Your task to perform on an android device: remove spam from my inbox in the gmail app Image 0: 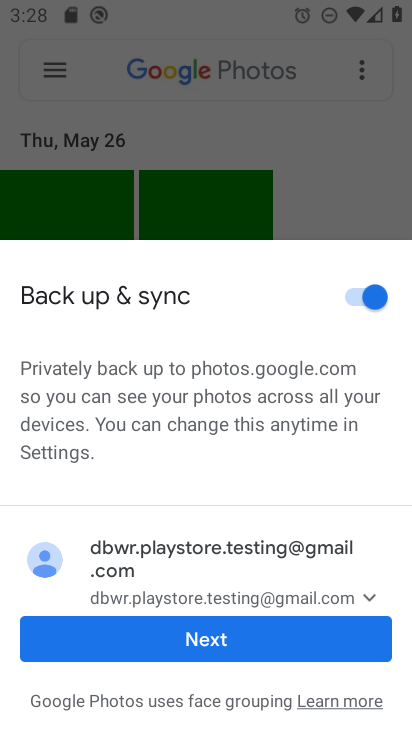
Step 0: press home button
Your task to perform on an android device: remove spam from my inbox in the gmail app Image 1: 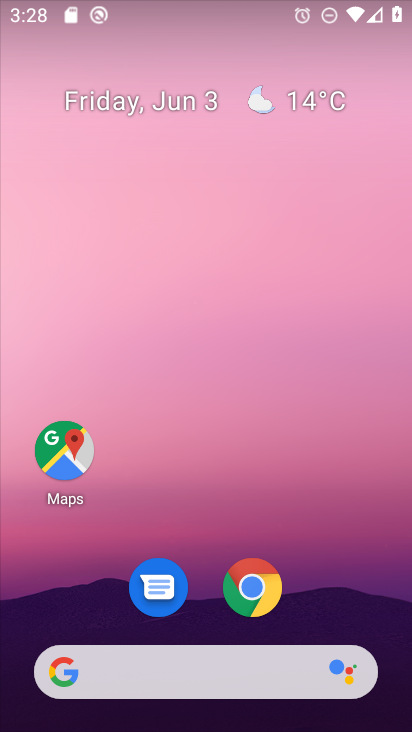
Step 1: drag from (249, 649) to (249, 159)
Your task to perform on an android device: remove spam from my inbox in the gmail app Image 2: 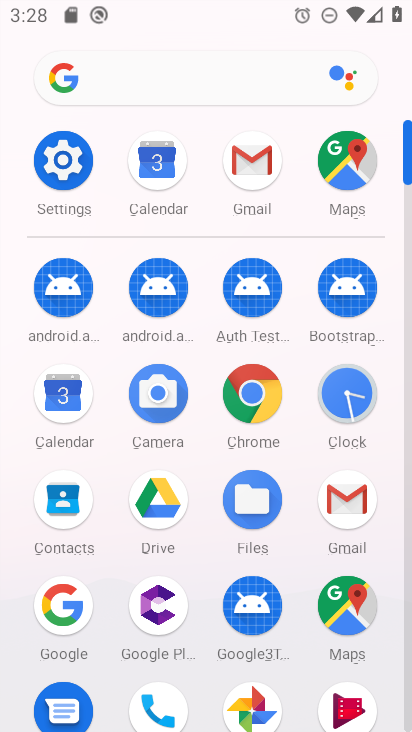
Step 2: click (345, 506)
Your task to perform on an android device: remove spam from my inbox in the gmail app Image 3: 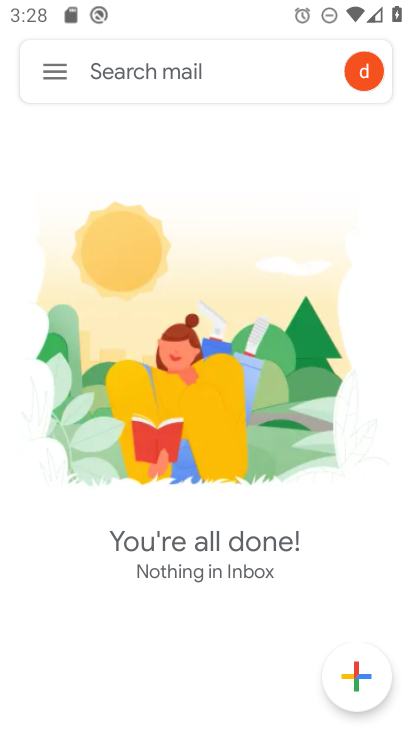
Step 3: click (57, 63)
Your task to perform on an android device: remove spam from my inbox in the gmail app Image 4: 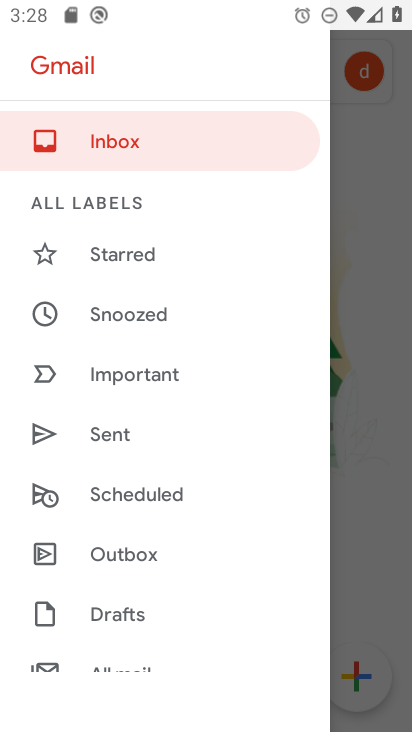
Step 4: click (109, 135)
Your task to perform on an android device: remove spam from my inbox in the gmail app Image 5: 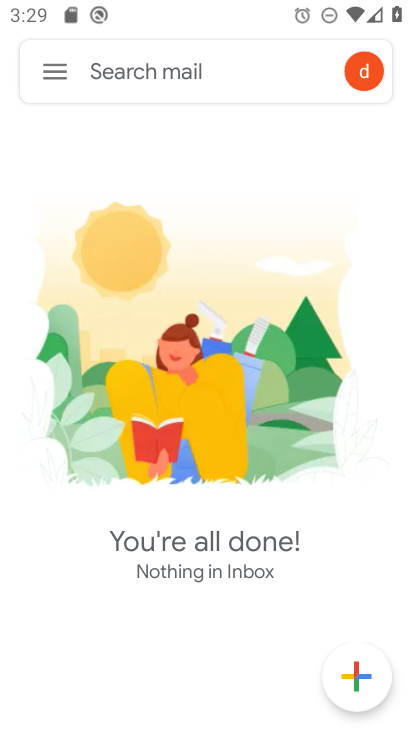
Step 5: task complete